Your task to perform on an android device: check data usage Image 0: 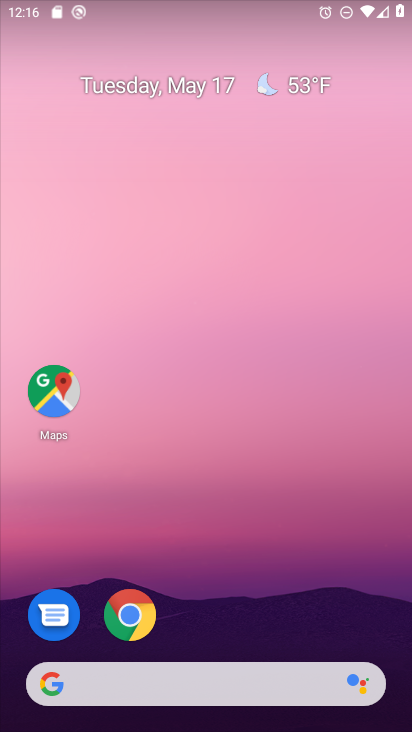
Step 0: drag from (151, 655) to (234, 320)
Your task to perform on an android device: check data usage Image 1: 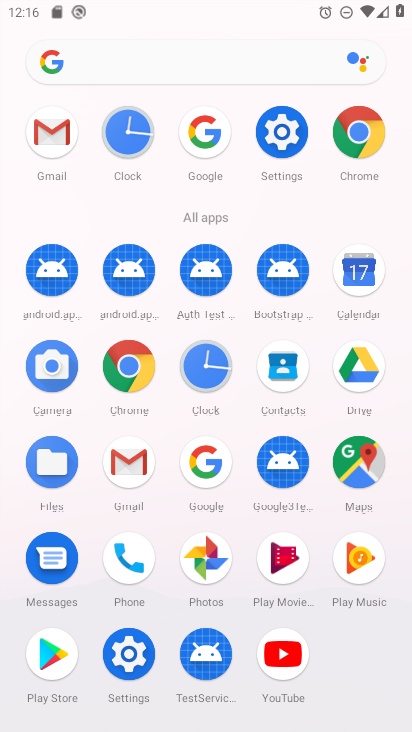
Step 1: click (285, 122)
Your task to perform on an android device: check data usage Image 2: 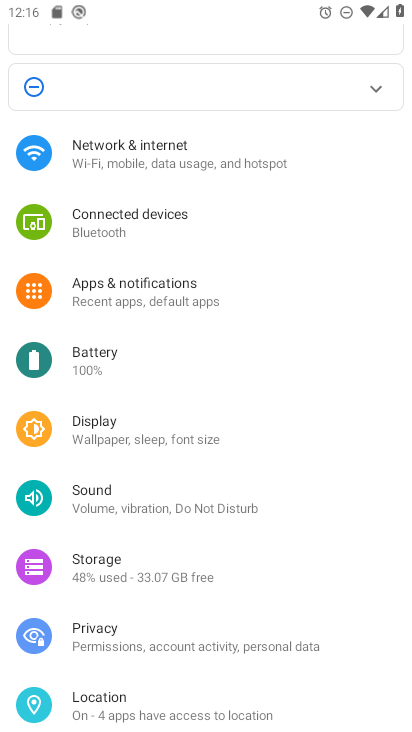
Step 2: click (136, 143)
Your task to perform on an android device: check data usage Image 3: 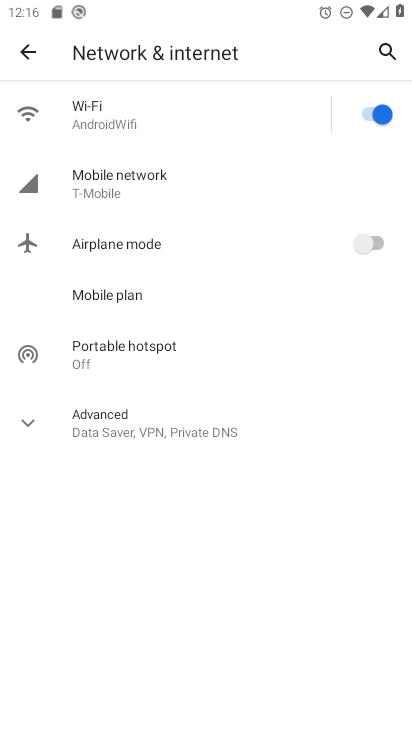
Step 3: click (120, 178)
Your task to perform on an android device: check data usage Image 4: 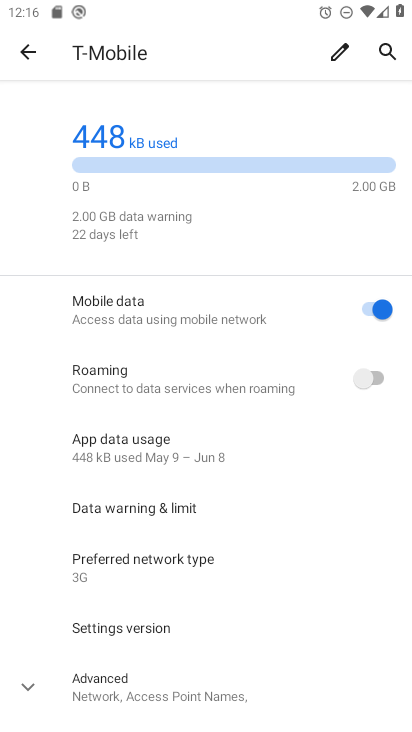
Step 4: task complete